Your task to perform on an android device: turn vacation reply on in the gmail app Image 0: 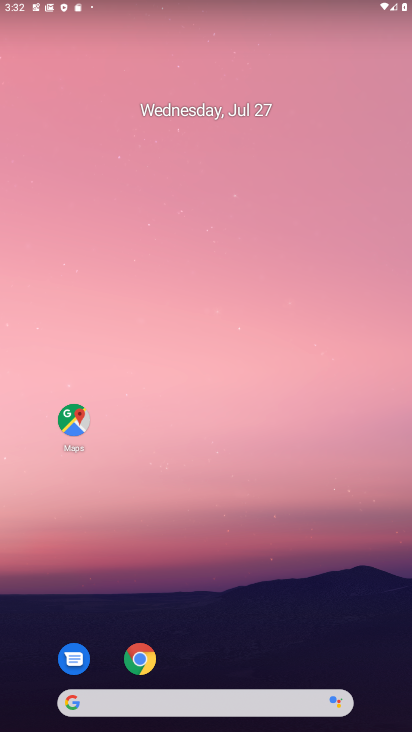
Step 0: drag from (169, 666) to (171, 198)
Your task to perform on an android device: turn vacation reply on in the gmail app Image 1: 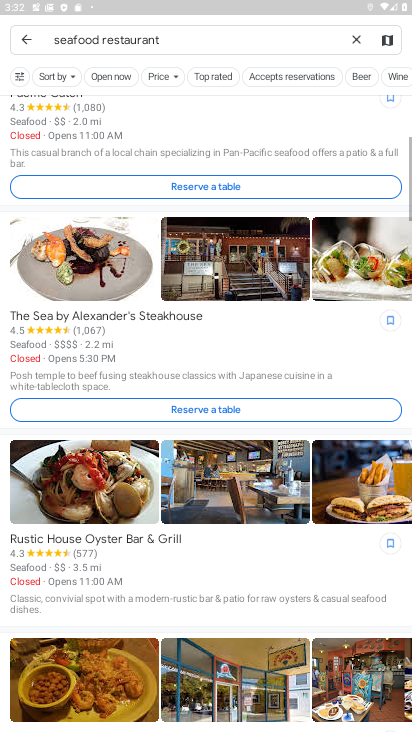
Step 1: press home button
Your task to perform on an android device: turn vacation reply on in the gmail app Image 2: 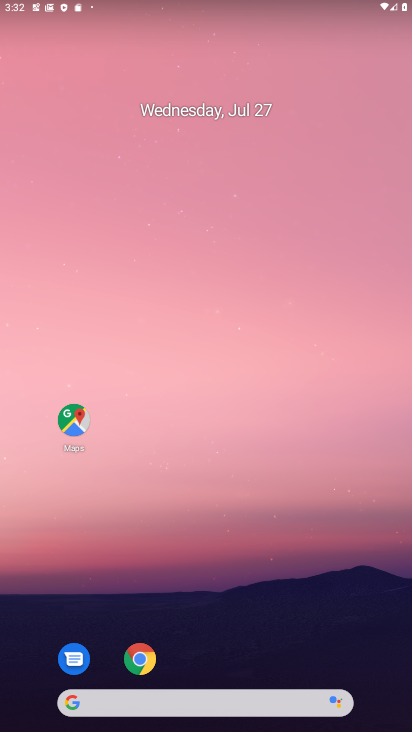
Step 2: drag from (151, 513) to (136, 214)
Your task to perform on an android device: turn vacation reply on in the gmail app Image 3: 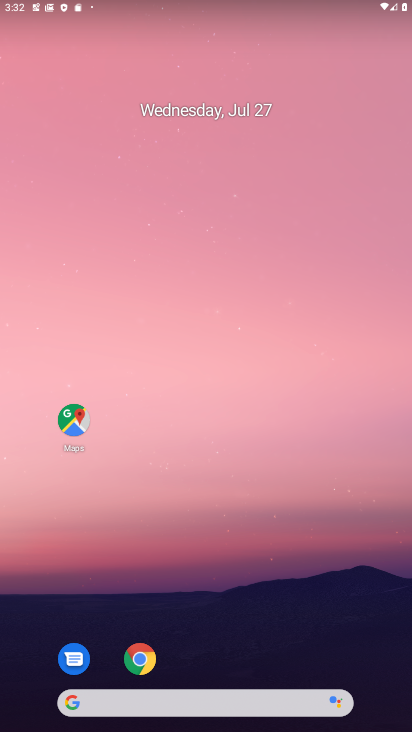
Step 3: drag from (186, 547) to (186, 231)
Your task to perform on an android device: turn vacation reply on in the gmail app Image 4: 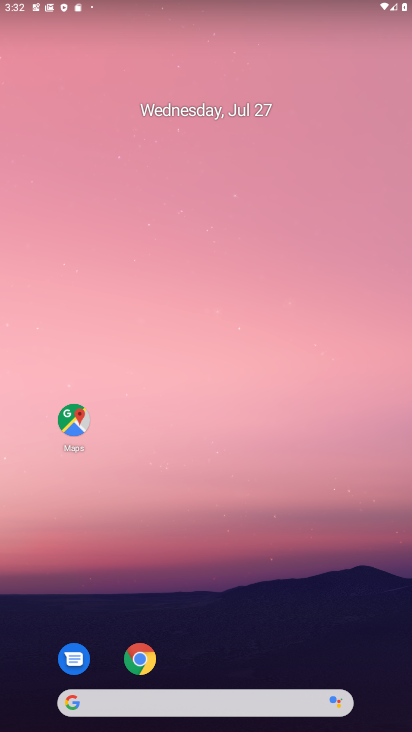
Step 4: drag from (211, 682) to (195, 169)
Your task to perform on an android device: turn vacation reply on in the gmail app Image 5: 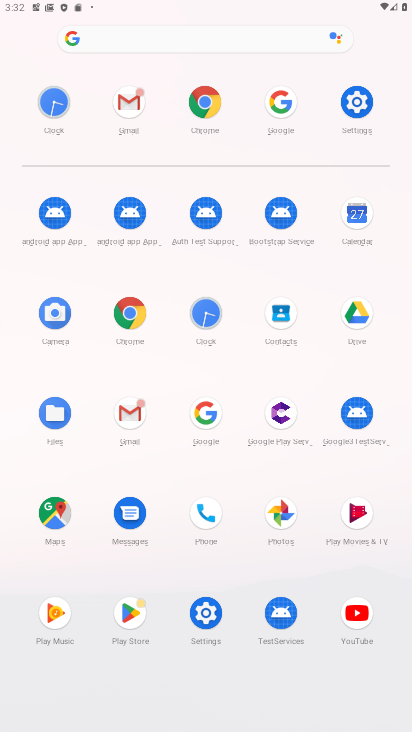
Step 5: click (122, 101)
Your task to perform on an android device: turn vacation reply on in the gmail app Image 6: 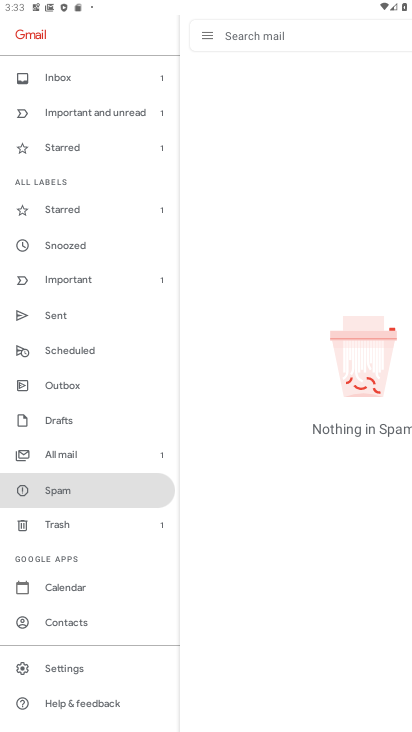
Step 6: click (60, 660)
Your task to perform on an android device: turn vacation reply on in the gmail app Image 7: 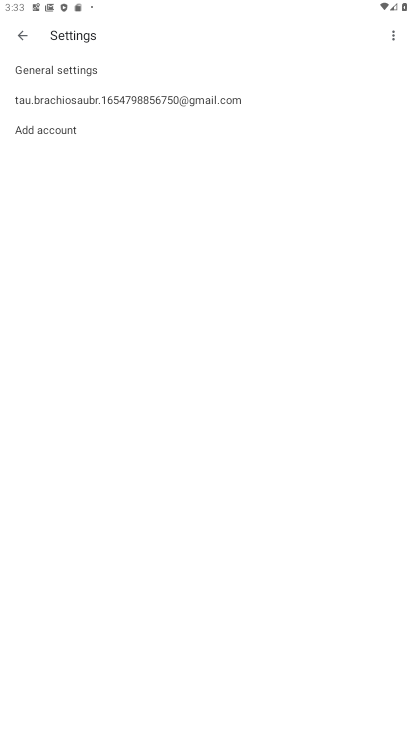
Step 7: click (70, 94)
Your task to perform on an android device: turn vacation reply on in the gmail app Image 8: 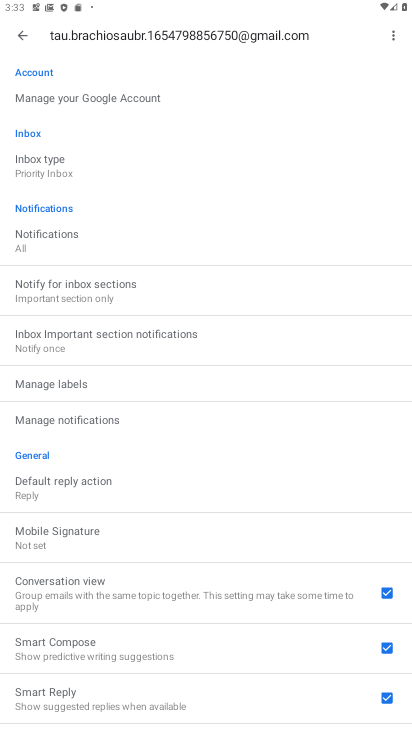
Step 8: drag from (47, 699) to (47, 330)
Your task to perform on an android device: turn vacation reply on in the gmail app Image 9: 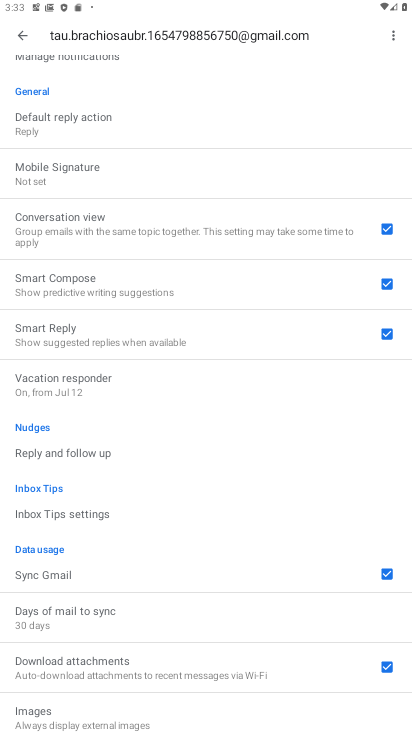
Step 9: click (43, 382)
Your task to perform on an android device: turn vacation reply on in the gmail app Image 10: 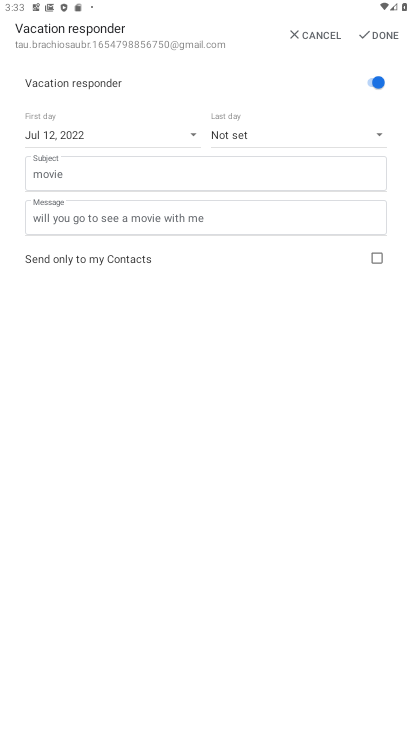
Step 10: click (380, 35)
Your task to perform on an android device: turn vacation reply on in the gmail app Image 11: 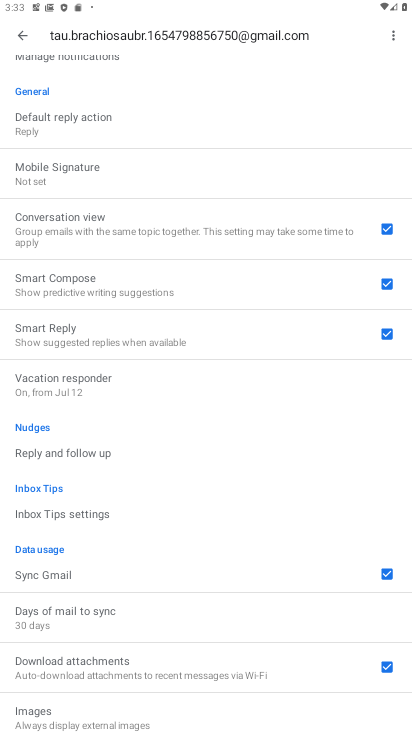
Step 11: task complete